Your task to perform on an android device: open chrome and create a bookmark for the current page Image 0: 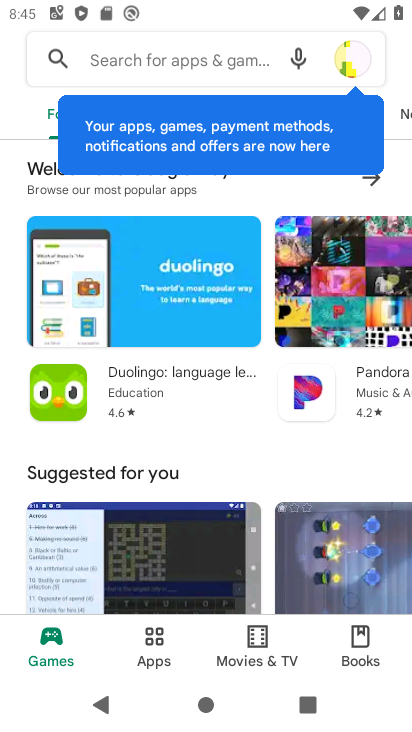
Step 0: press home button
Your task to perform on an android device: open chrome and create a bookmark for the current page Image 1: 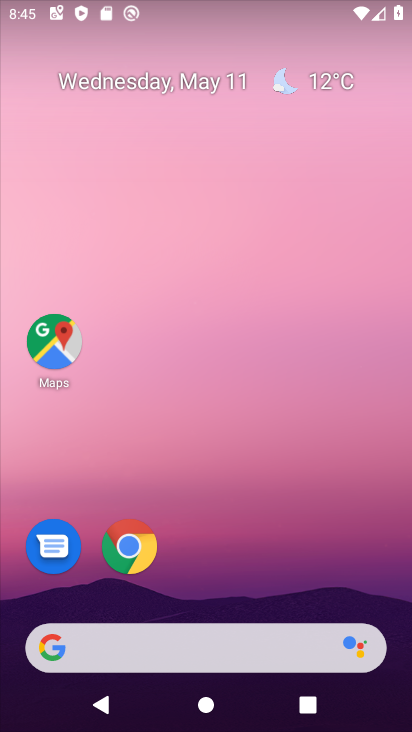
Step 1: click (125, 543)
Your task to perform on an android device: open chrome and create a bookmark for the current page Image 2: 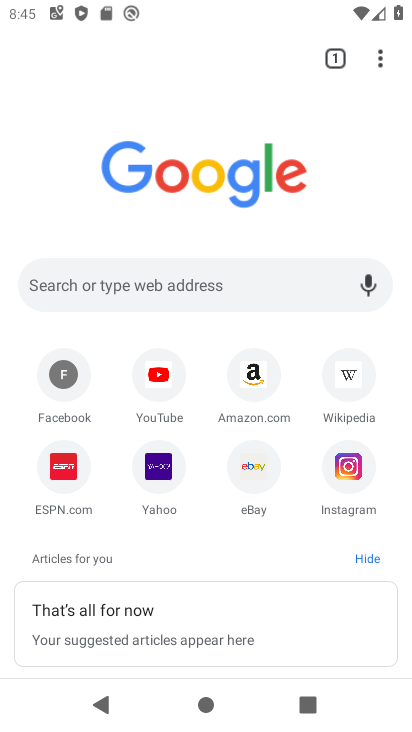
Step 2: click (374, 57)
Your task to perform on an android device: open chrome and create a bookmark for the current page Image 3: 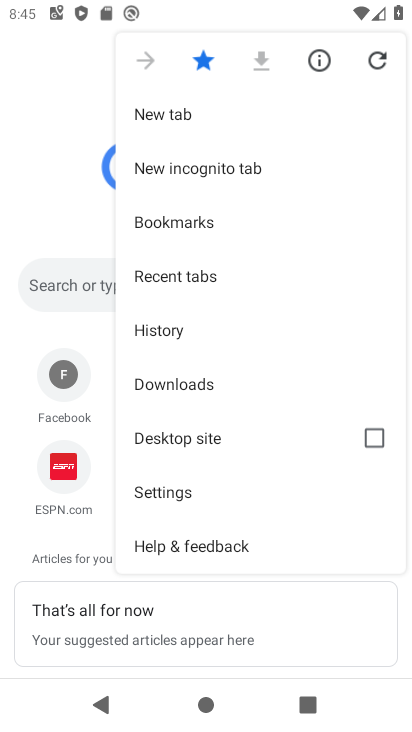
Step 3: task complete